Your task to perform on an android device: turn off priority inbox in the gmail app Image 0: 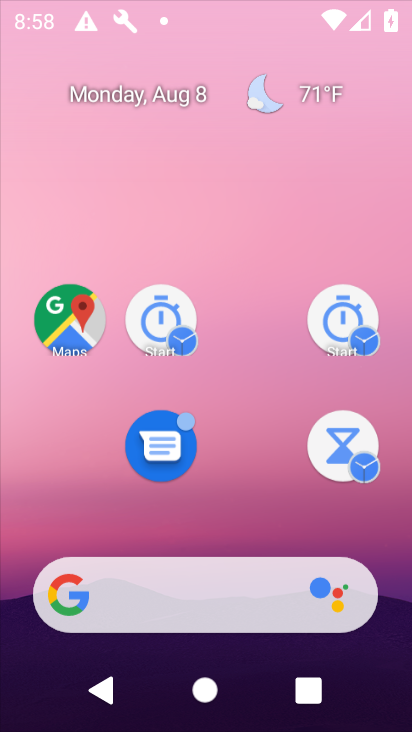
Step 0: drag from (296, 680) to (285, 239)
Your task to perform on an android device: turn off priority inbox in the gmail app Image 1: 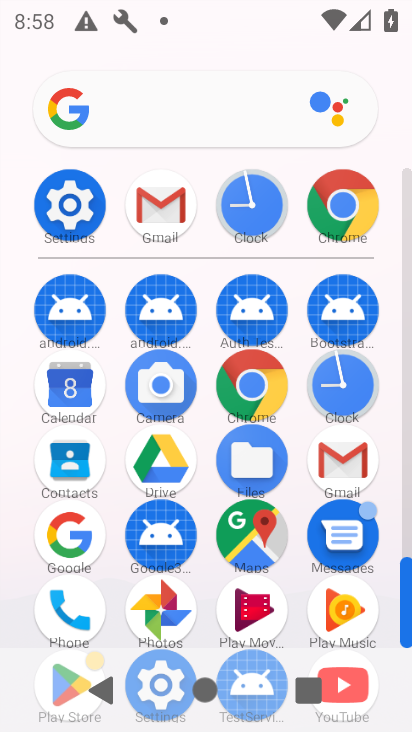
Step 1: click (349, 466)
Your task to perform on an android device: turn off priority inbox in the gmail app Image 2: 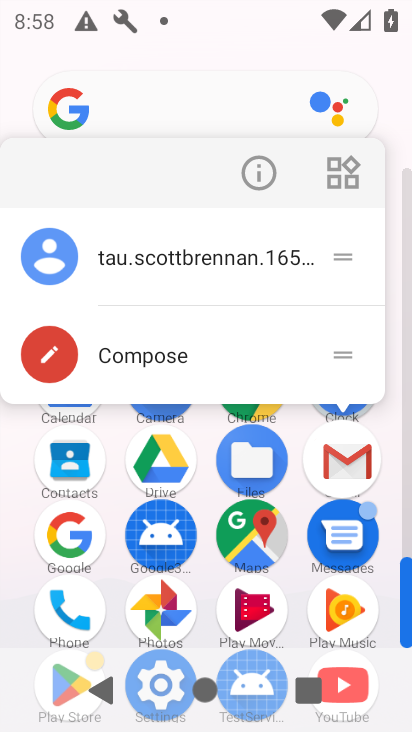
Step 2: click (341, 464)
Your task to perform on an android device: turn off priority inbox in the gmail app Image 3: 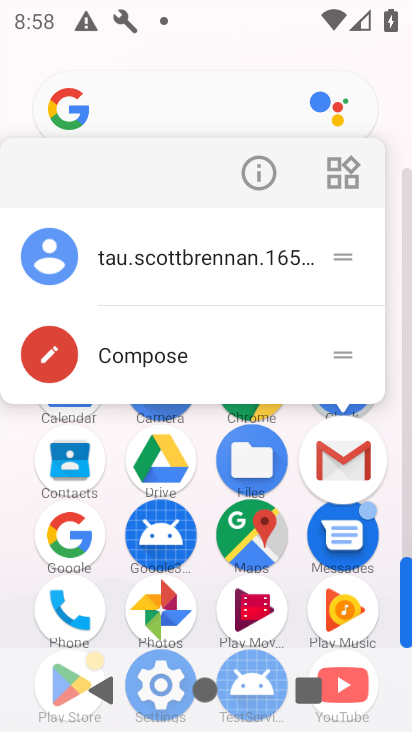
Step 3: click (343, 465)
Your task to perform on an android device: turn off priority inbox in the gmail app Image 4: 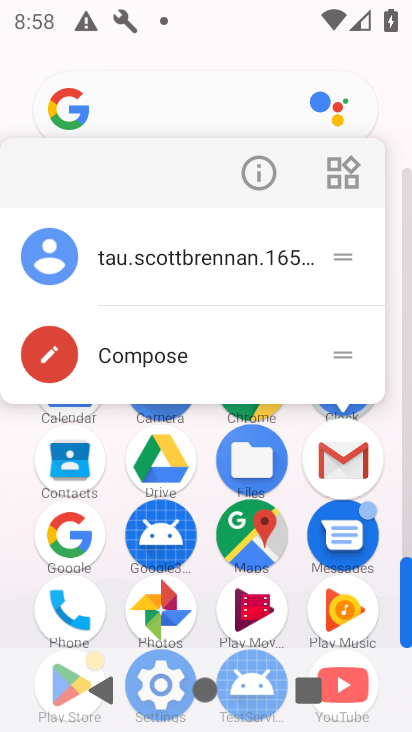
Step 4: click (339, 455)
Your task to perform on an android device: turn off priority inbox in the gmail app Image 5: 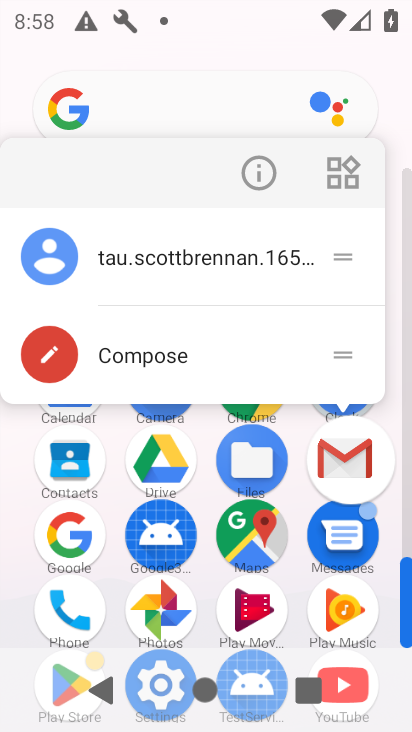
Step 5: click (348, 455)
Your task to perform on an android device: turn off priority inbox in the gmail app Image 6: 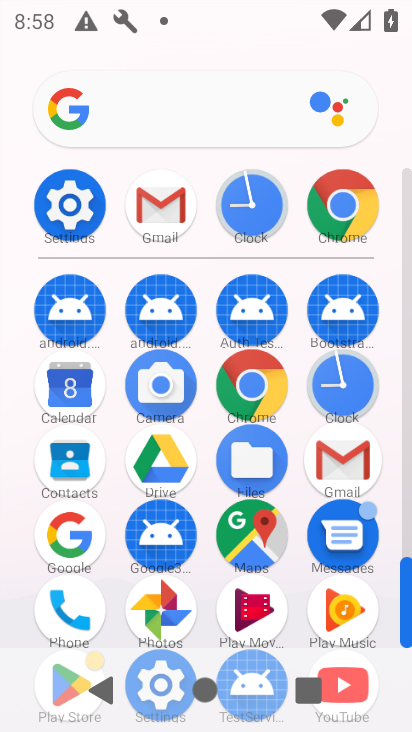
Step 6: click (351, 455)
Your task to perform on an android device: turn off priority inbox in the gmail app Image 7: 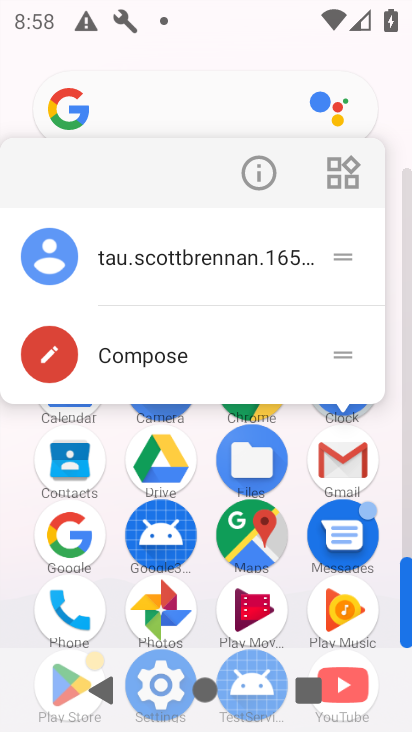
Step 7: click (349, 424)
Your task to perform on an android device: turn off priority inbox in the gmail app Image 8: 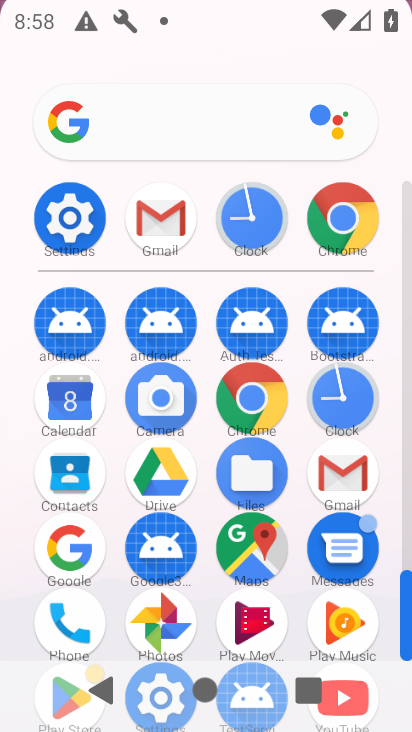
Step 8: click (342, 458)
Your task to perform on an android device: turn off priority inbox in the gmail app Image 9: 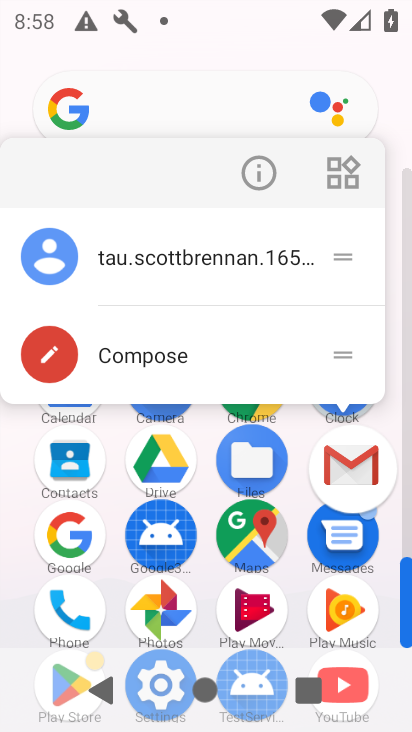
Step 9: click (344, 459)
Your task to perform on an android device: turn off priority inbox in the gmail app Image 10: 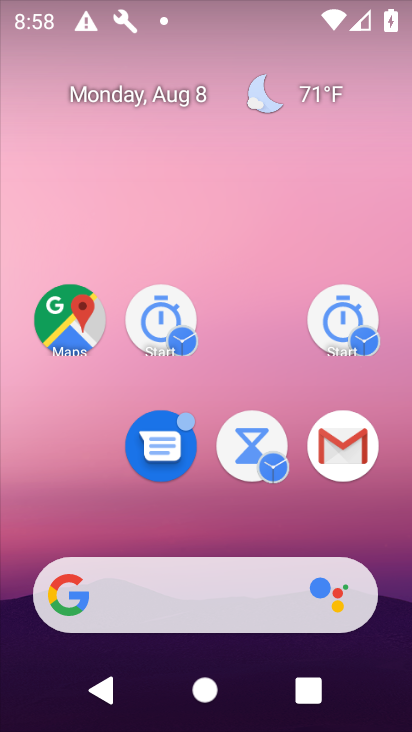
Step 10: click (343, 425)
Your task to perform on an android device: turn off priority inbox in the gmail app Image 11: 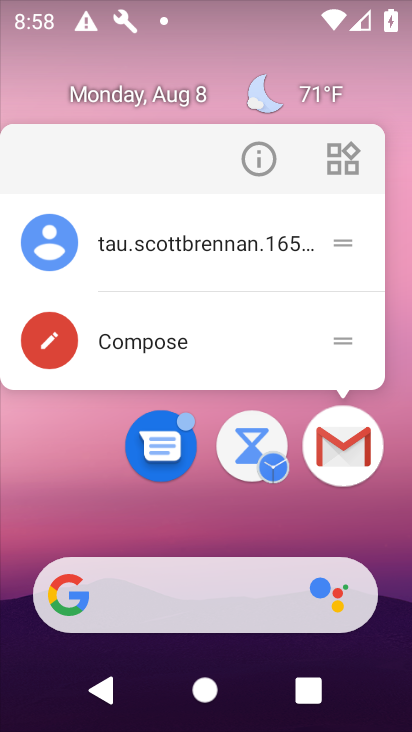
Step 11: click (341, 452)
Your task to perform on an android device: turn off priority inbox in the gmail app Image 12: 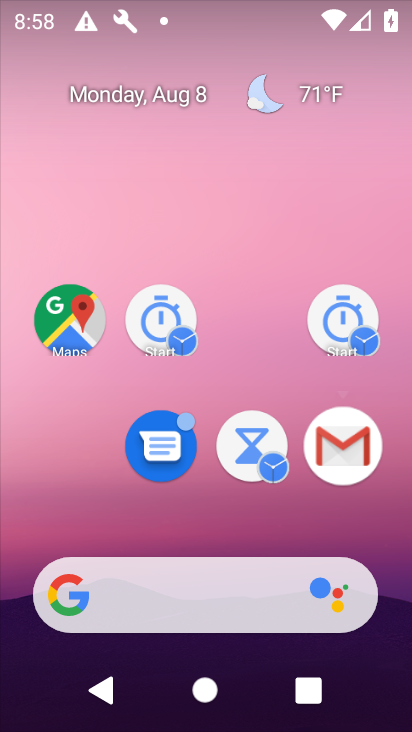
Step 12: click (342, 453)
Your task to perform on an android device: turn off priority inbox in the gmail app Image 13: 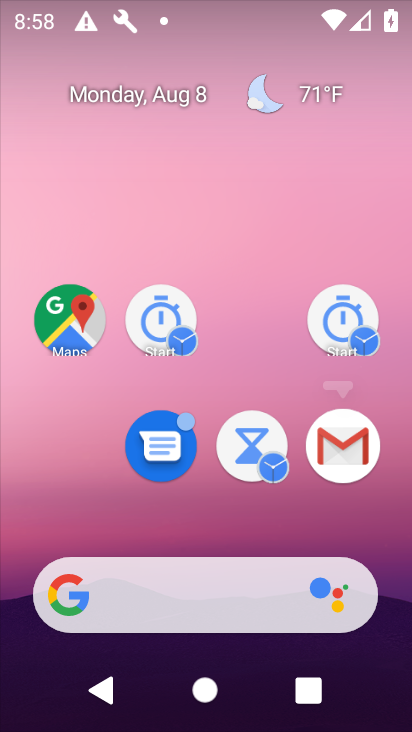
Step 13: click (342, 455)
Your task to perform on an android device: turn off priority inbox in the gmail app Image 14: 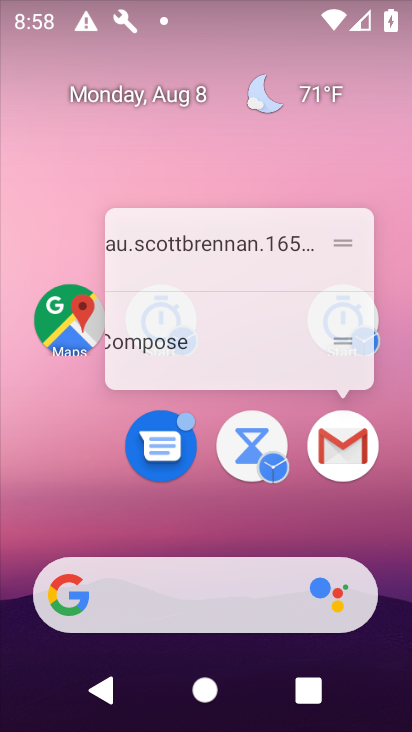
Step 14: click (342, 455)
Your task to perform on an android device: turn off priority inbox in the gmail app Image 15: 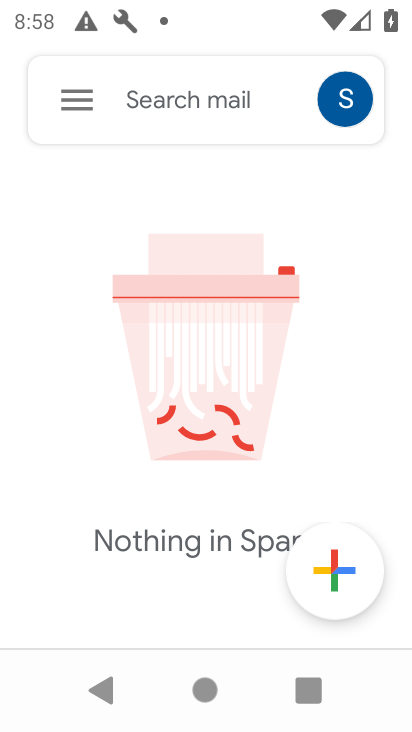
Step 15: click (336, 457)
Your task to perform on an android device: turn off priority inbox in the gmail app Image 16: 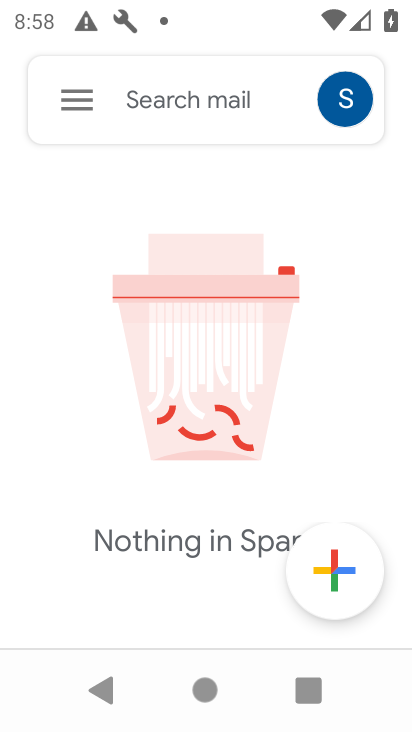
Step 16: drag from (160, 625) to (124, 67)
Your task to perform on an android device: turn off priority inbox in the gmail app Image 17: 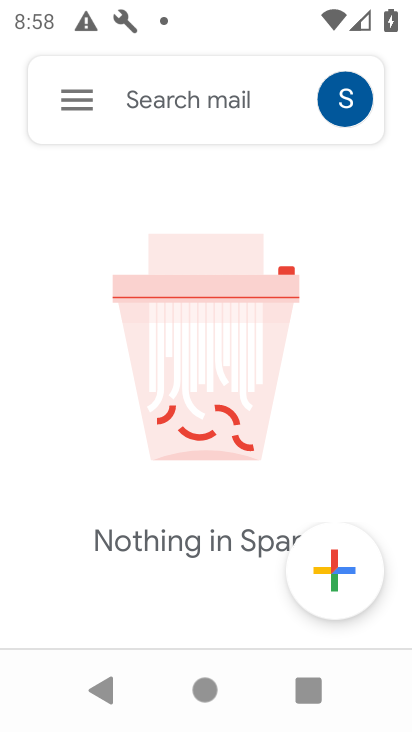
Step 17: click (71, 120)
Your task to perform on an android device: turn off priority inbox in the gmail app Image 18: 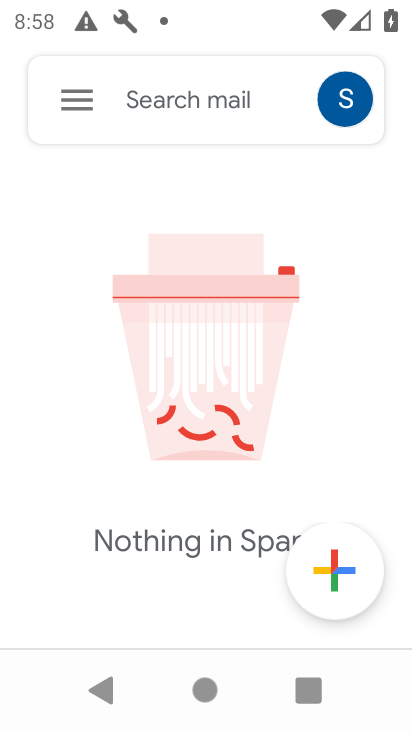
Step 18: click (71, 120)
Your task to perform on an android device: turn off priority inbox in the gmail app Image 19: 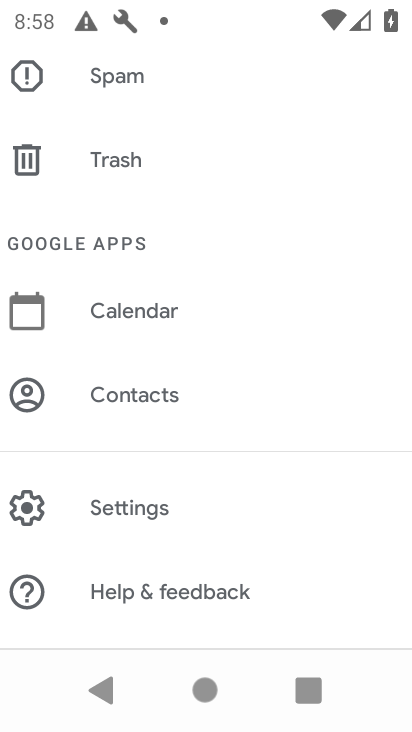
Step 19: click (66, 117)
Your task to perform on an android device: turn off priority inbox in the gmail app Image 20: 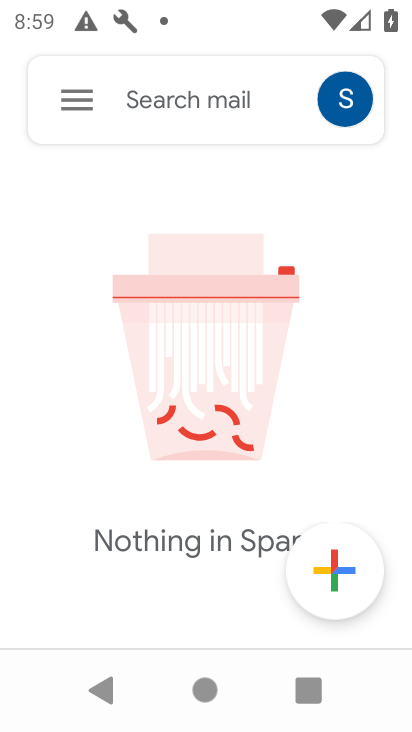
Step 20: click (70, 113)
Your task to perform on an android device: turn off priority inbox in the gmail app Image 21: 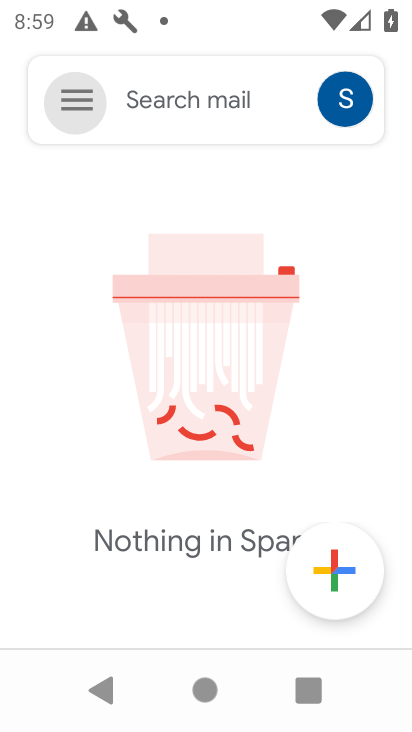
Step 21: click (70, 113)
Your task to perform on an android device: turn off priority inbox in the gmail app Image 22: 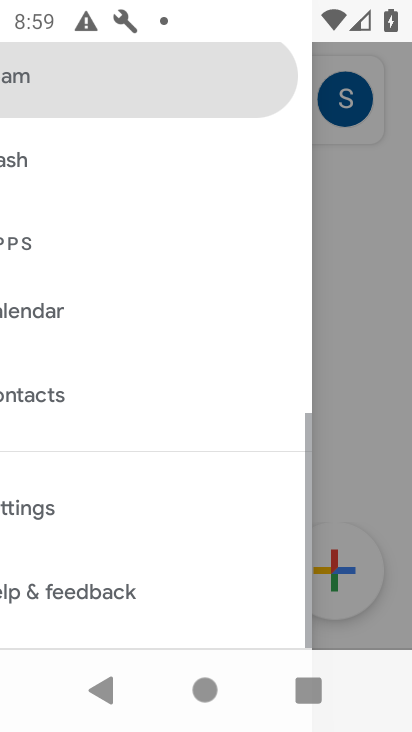
Step 22: click (69, 112)
Your task to perform on an android device: turn off priority inbox in the gmail app Image 23: 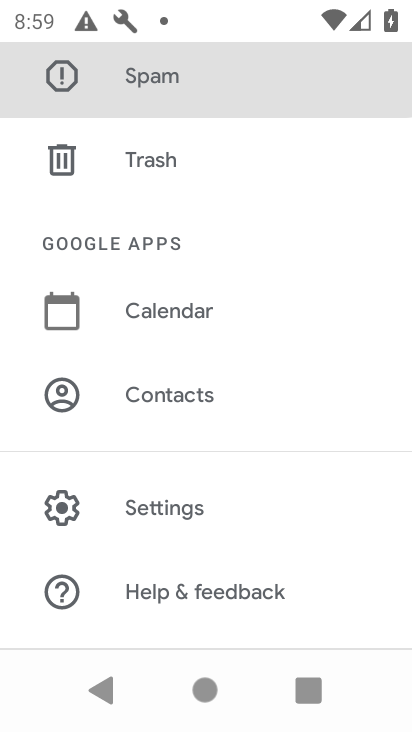
Step 23: click (69, 112)
Your task to perform on an android device: turn off priority inbox in the gmail app Image 24: 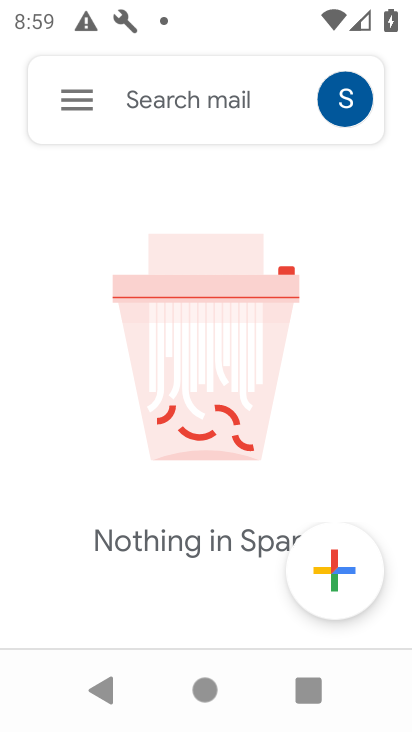
Step 24: click (75, 95)
Your task to perform on an android device: turn off priority inbox in the gmail app Image 25: 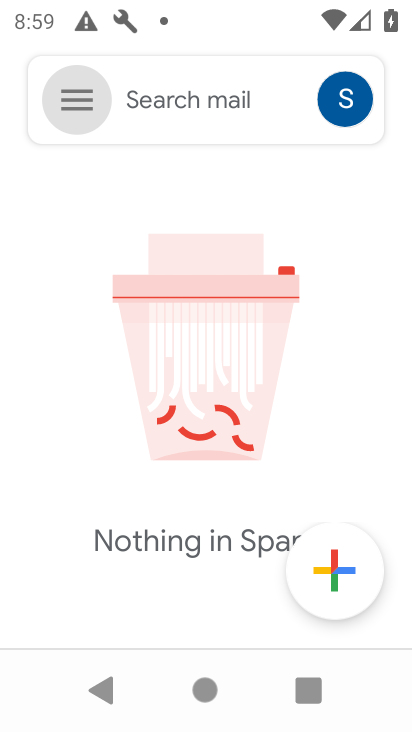
Step 25: click (81, 101)
Your task to perform on an android device: turn off priority inbox in the gmail app Image 26: 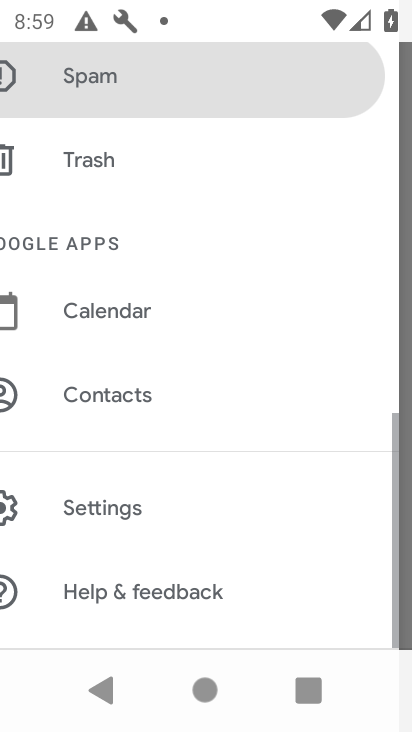
Step 26: click (80, 103)
Your task to perform on an android device: turn off priority inbox in the gmail app Image 27: 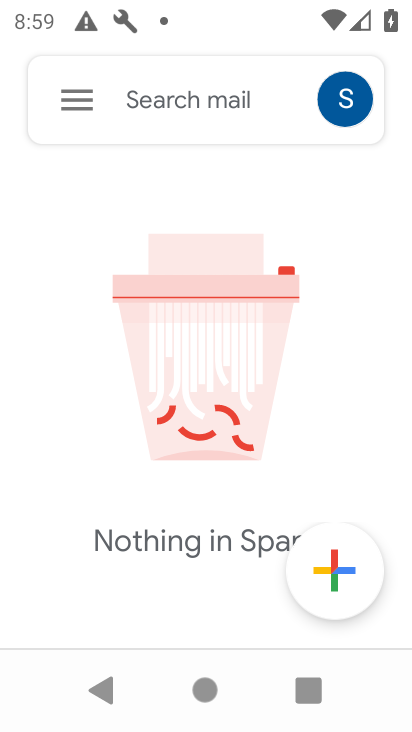
Step 27: click (78, 105)
Your task to perform on an android device: turn off priority inbox in the gmail app Image 28: 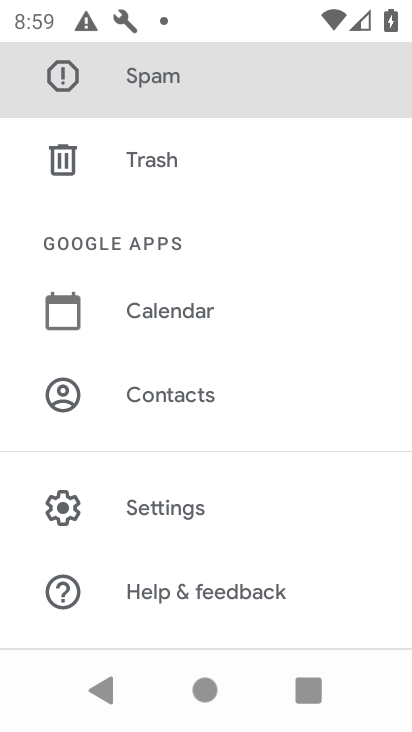
Step 28: drag from (168, 623) to (202, 231)
Your task to perform on an android device: turn off priority inbox in the gmail app Image 29: 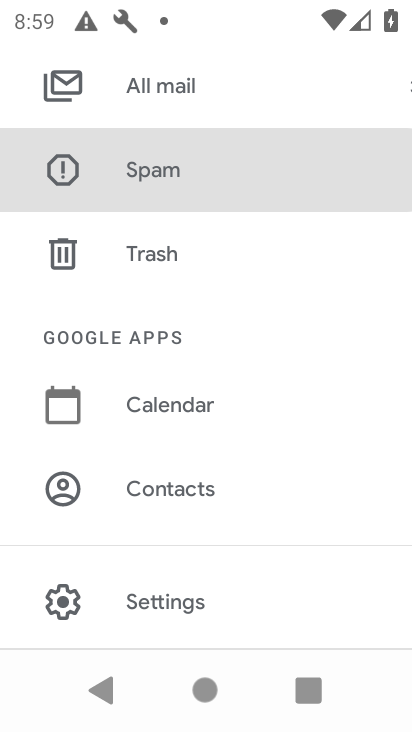
Step 29: click (159, 584)
Your task to perform on an android device: turn off priority inbox in the gmail app Image 30: 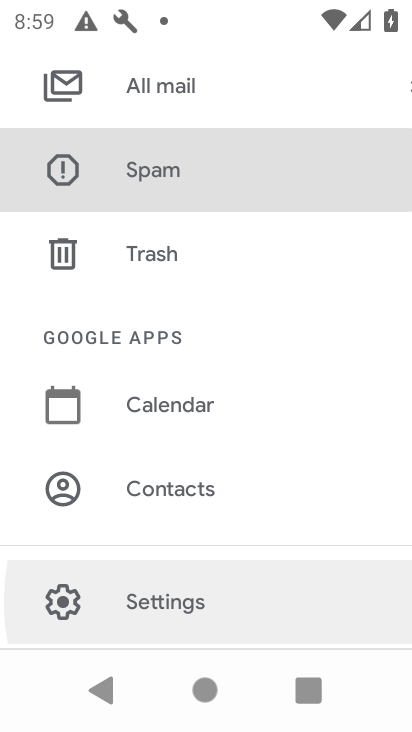
Step 30: click (155, 596)
Your task to perform on an android device: turn off priority inbox in the gmail app Image 31: 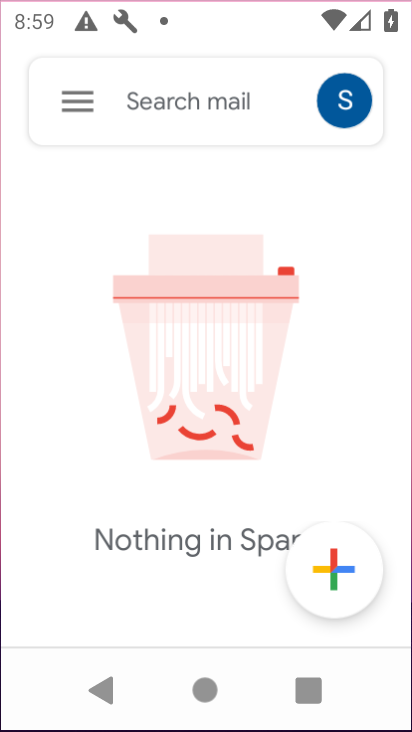
Step 31: click (157, 603)
Your task to perform on an android device: turn off priority inbox in the gmail app Image 32: 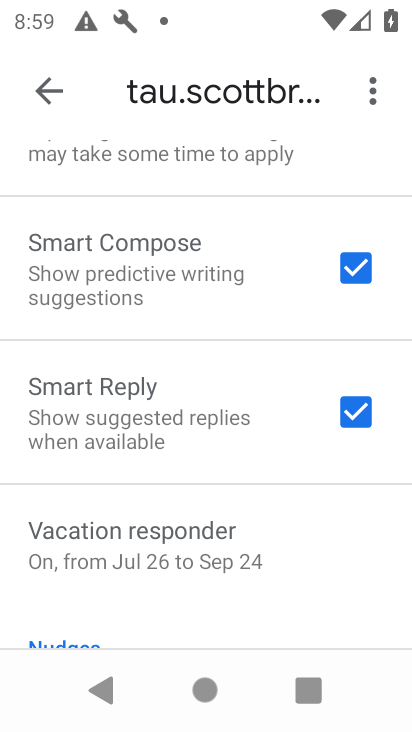
Step 32: drag from (159, 513) to (165, 181)
Your task to perform on an android device: turn off priority inbox in the gmail app Image 33: 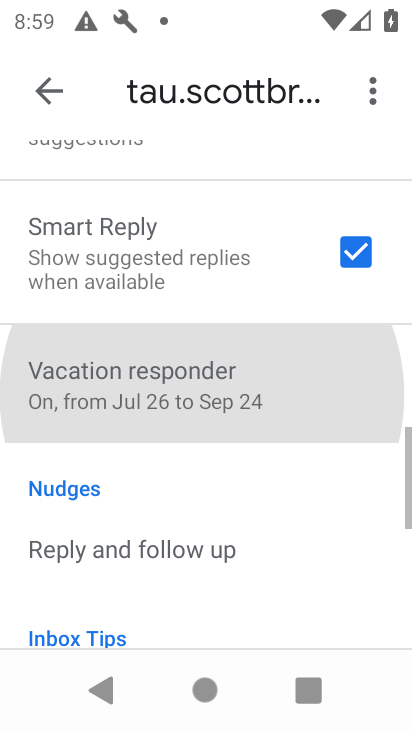
Step 33: drag from (216, 517) to (214, 176)
Your task to perform on an android device: turn off priority inbox in the gmail app Image 34: 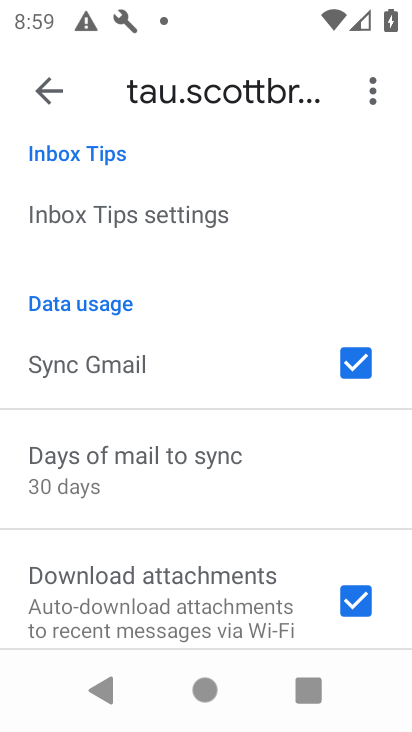
Step 34: drag from (204, 526) to (179, 199)
Your task to perform on an android device: turn off priority inbox in the gmail app Image 35: 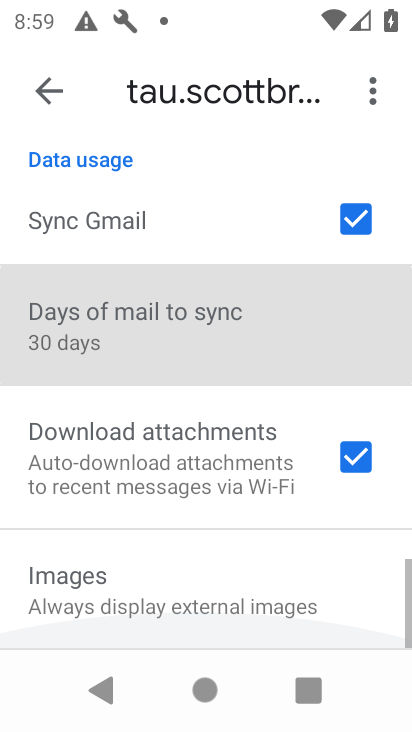
Step 35: drag from (220, 270) to (216, 208)
Your task to perform on an android device: turn off priority inbox in the gmail app Image 36: 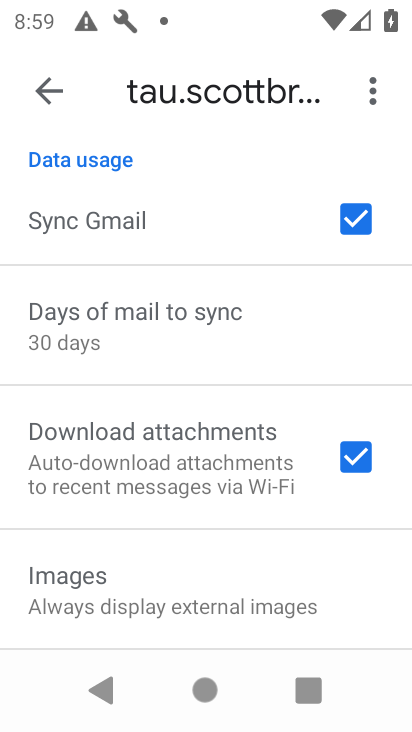
Step 36: drag from (129, 442) to (158, 179)
Your task to perform on an android device: turn off priority inbox in the gmail app Image 37: 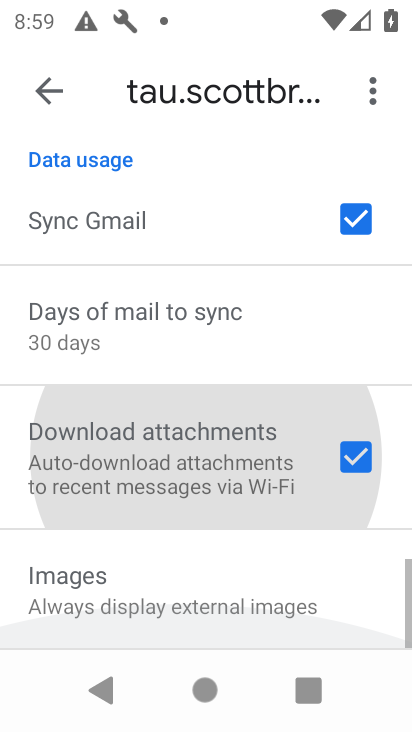
Step 37: drag from (158, 543) to (120, 178)
Your task to perform on an android device: turn off priority inbox in the gmail app Image 38: 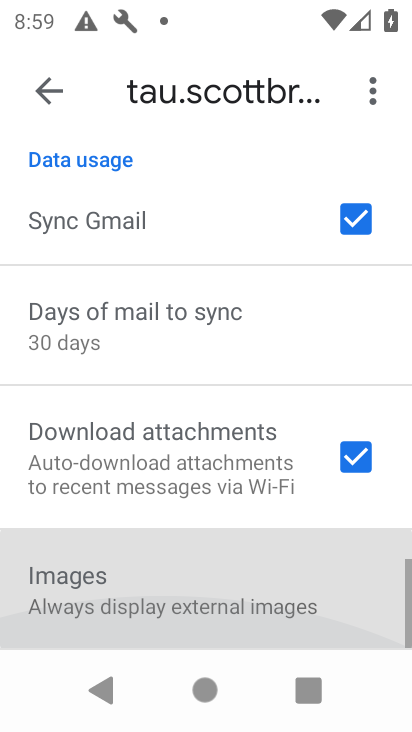
Step 38: drag from (161, 459) to (85, 128)
Your task to perform on an android device: turn off priority inbox in the gmail app Image 39: 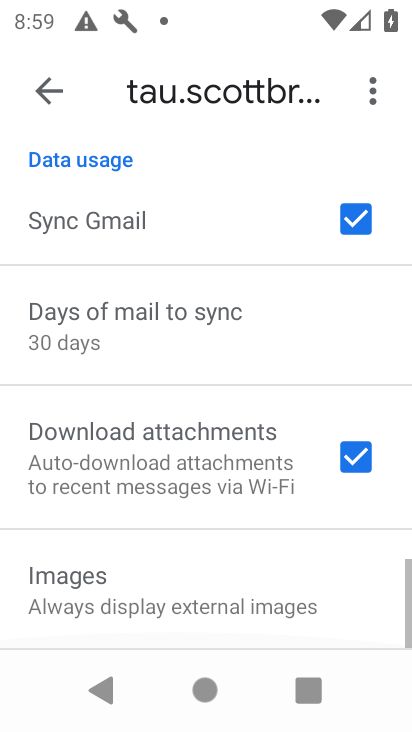
Step 39: drag from (188, 423) to (202, 196)
Your task to perform on an android device: turn off priority inbox in the gmail app Image 40: 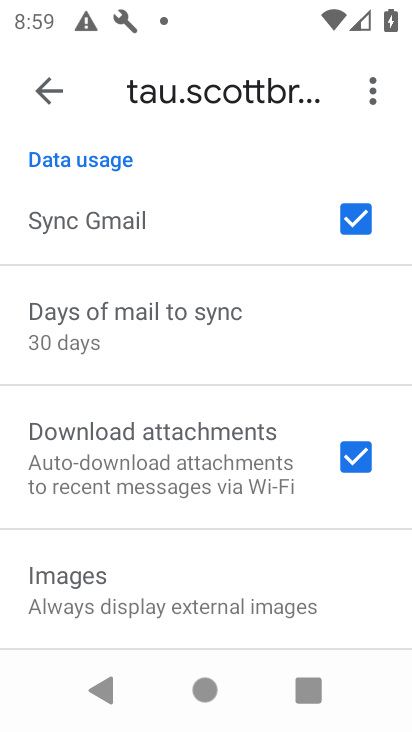
Step 40: drag from (121, 559) to (146, 237)
Your task to perform on an android device: turn off priority inbox in the gmail app Image 41: 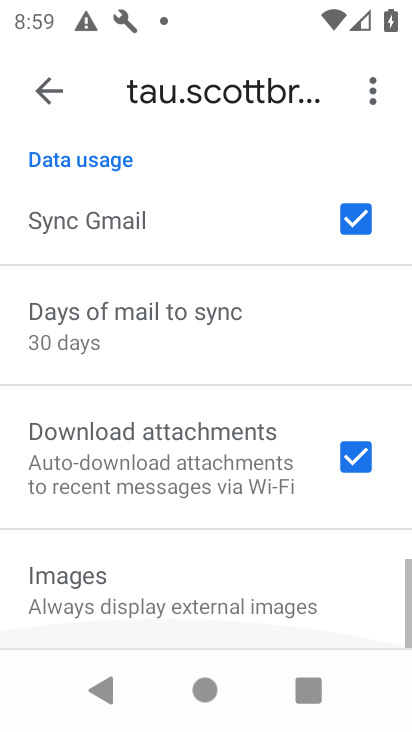
Step 41: drag from (165, 424) to (136, 202)
Your task to perform on an android device: turn off priority inbox in the gmail app Image 42: 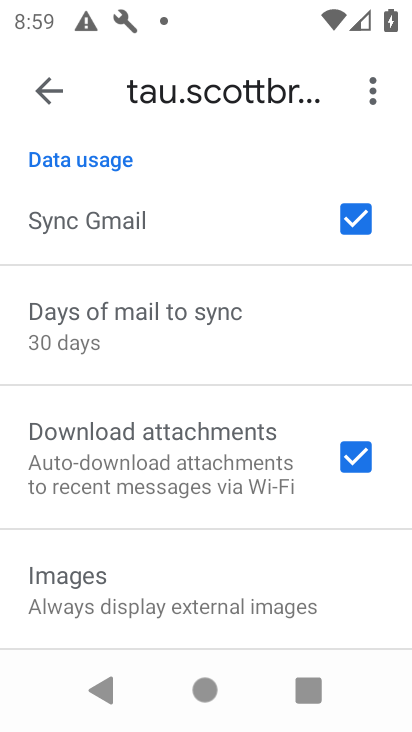
Step 42: drag from (114, 527) to (97, 224)
Your task to perform on an android device: turn off priority inbox in the gmail app Image 43: 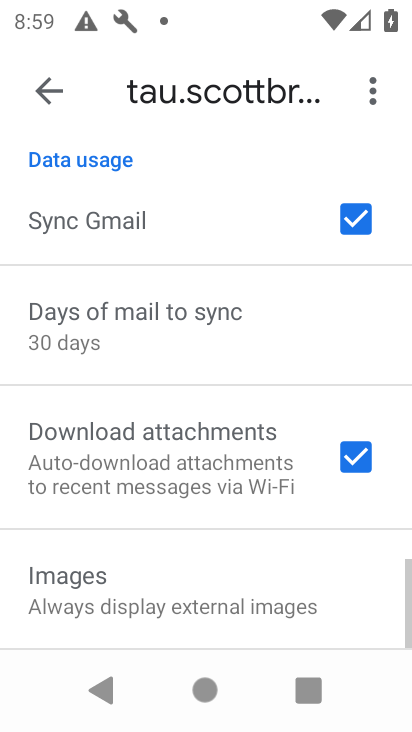
Step 43: drag from (103, 285) to (103, 607)
Your task to perform on an android device: turn off priority inbox in the gmail app Image 44: 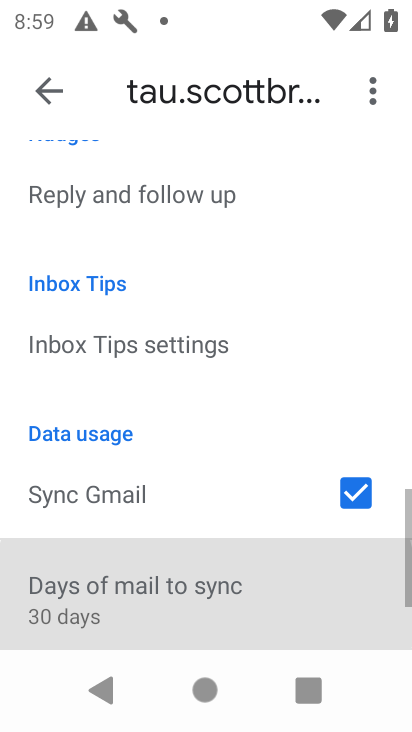
Step 44: drag from (126, 355) to (148, 586)
Your task to perform on an android device: turn off priority inbox in the gmail app Image 45: 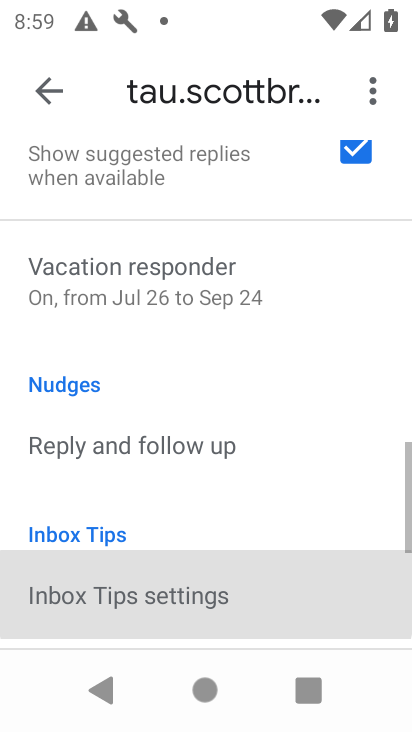
Step 45: drag from (124, 252) to (133, 506)
Your task to perform on an android device: turn off priority inbox in the gmail app Image 46: 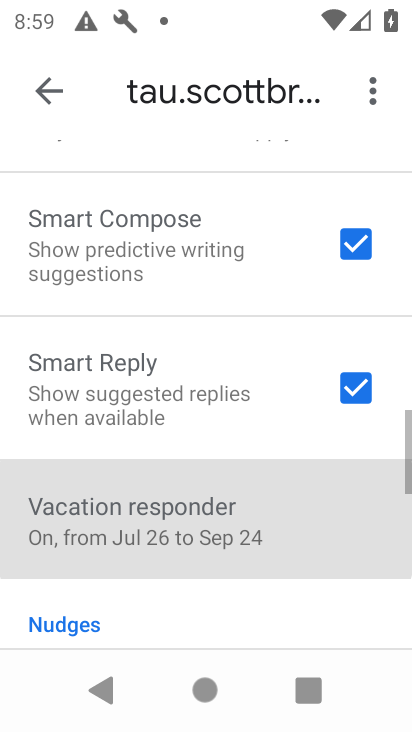
Step 46: drag from (118, 330) to (142, 488)
Your task to perform on an android device: turn off priority inbox in the gmail app Image 47: 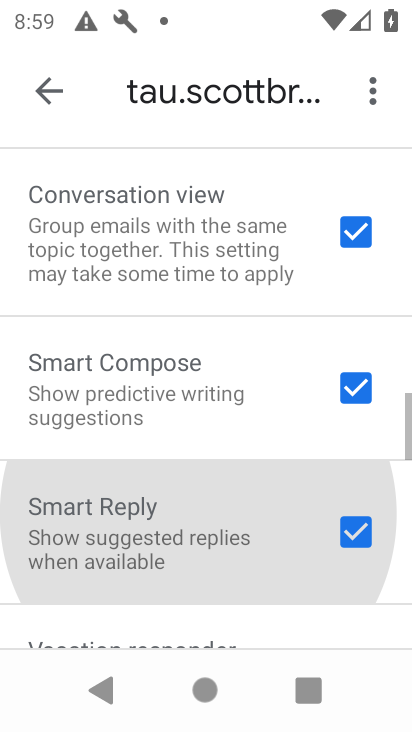
Step 47: drag from (121, 457) to (121, 496)
Your task to perform on an android device: turn off priority inbox in the gmail app Image 48: 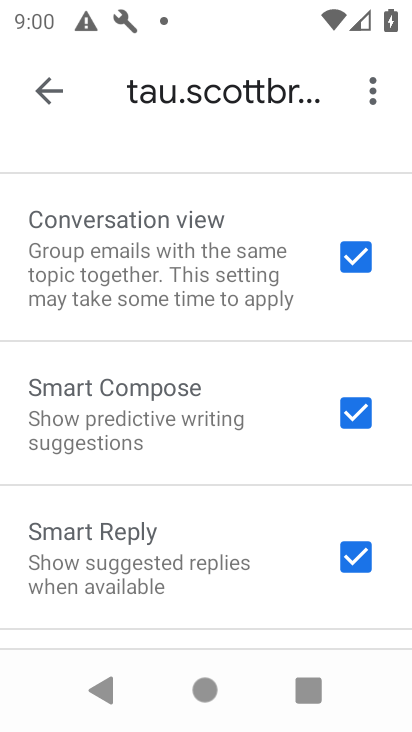
Step 48: drag from (86, 245) to (158, 557)
Your task to perform on an android device: turn off priority inbox in the gmail app Image 49: 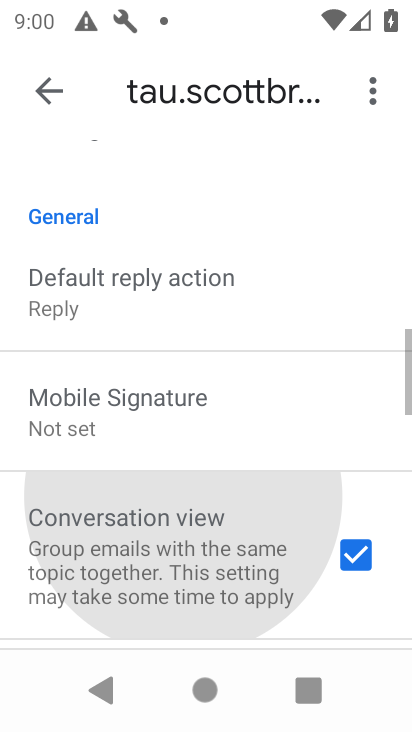
Step 49: drag from (168, 275) to (224, 514)
Your task to perform on an android device: turn off priority inbox in the gmail app Image 50: 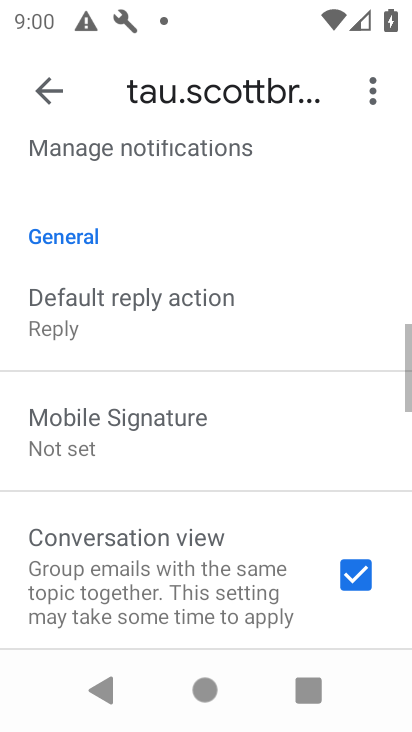
Step 50: drag from (147, 270) to (167, 547)
Your task to perform on an android device: turn off priority inbox in the gmail app Image 51: 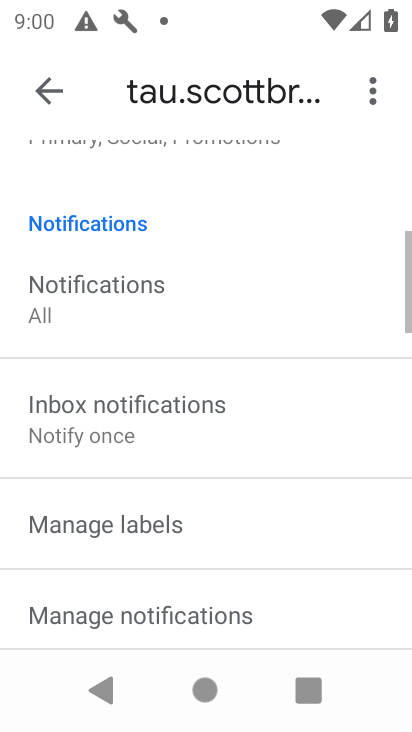
Step 51: drag from (142, 310) to (164, 548)
Your task to perform on an android device: turn off priority inbox in the gmail app Image 52: 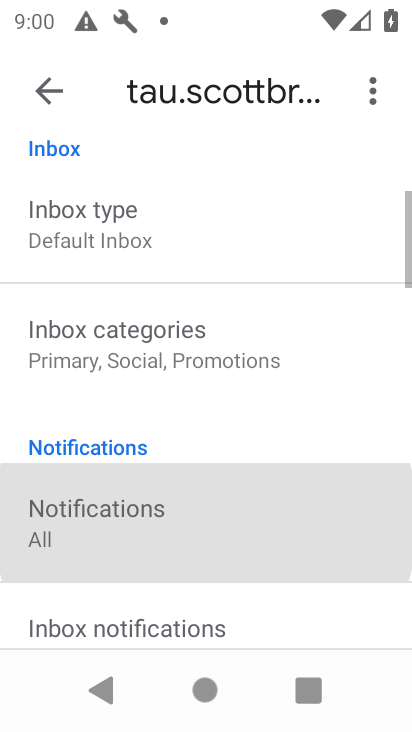
Step 52: drag from (141, 461) to (147, 602)
Your task to perform on an android device: turn off priority inbox in the gmail app Image 53: 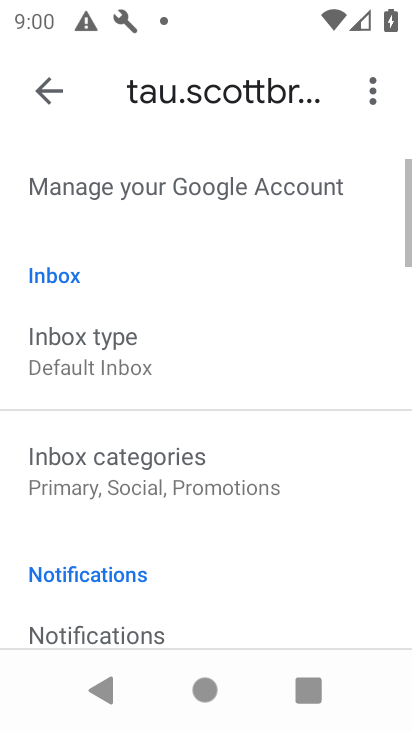
Step 53: drag from (70, 210) to (133, 537)
Your task to perform on an android device: turn off priority inbox in the gmail app Image 54: 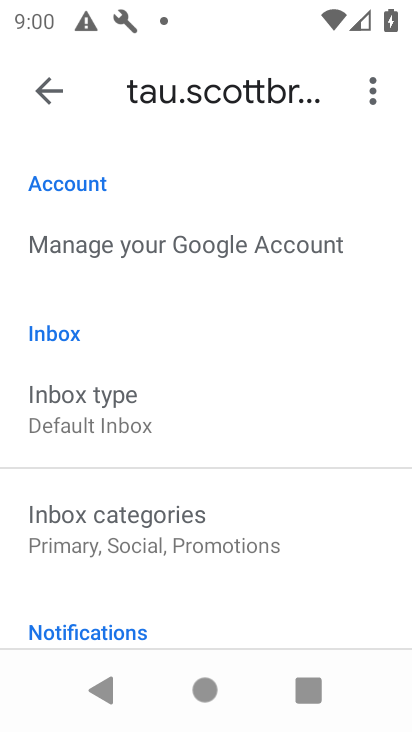
Step 54: click (82, 420)
Your task to perform on an android device: turn off priority inbox in the gmail app Image 55: 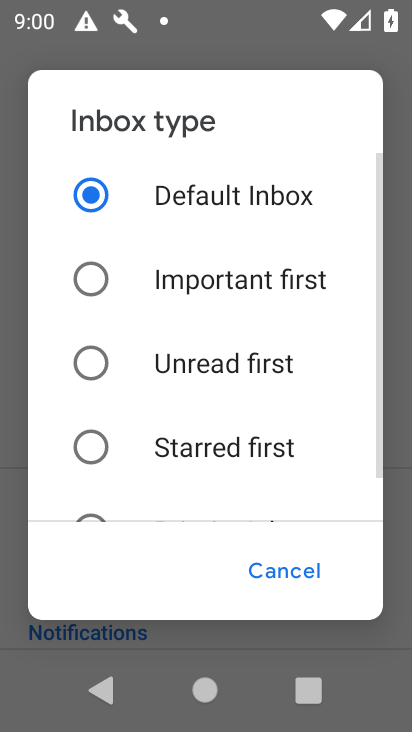
Step 55: click (407, 311)
Your task to perform on an android device: turn off priority inbox in the gmail app Image 56: 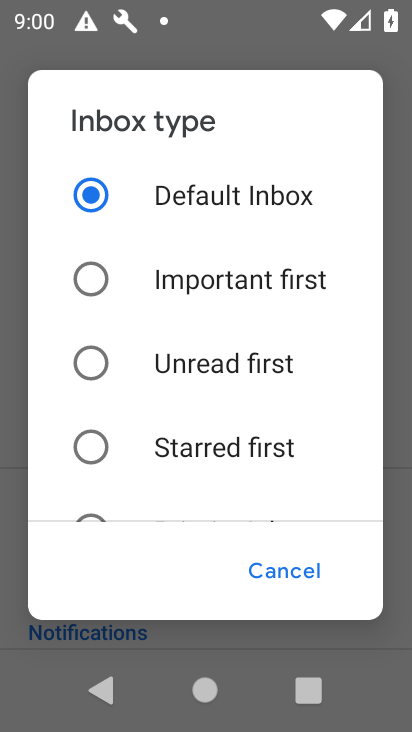
Step 56: click (278, 572)
Your task to perform on an android device: turn off priority inbox in the gmail app Image 57: 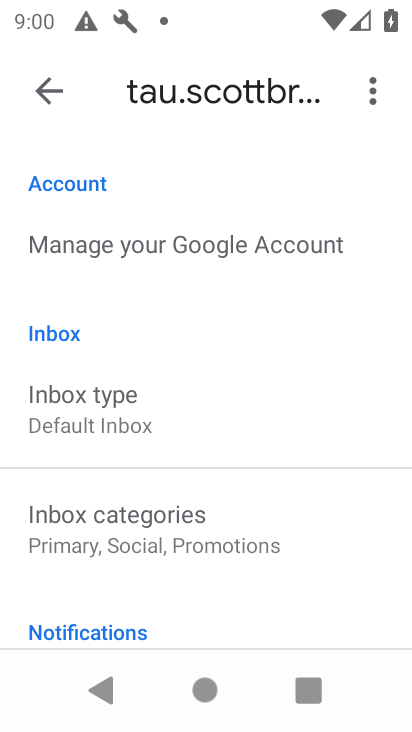
Step 57: task complete